Your task to perform on an android device: Open Google Maps Image 0: 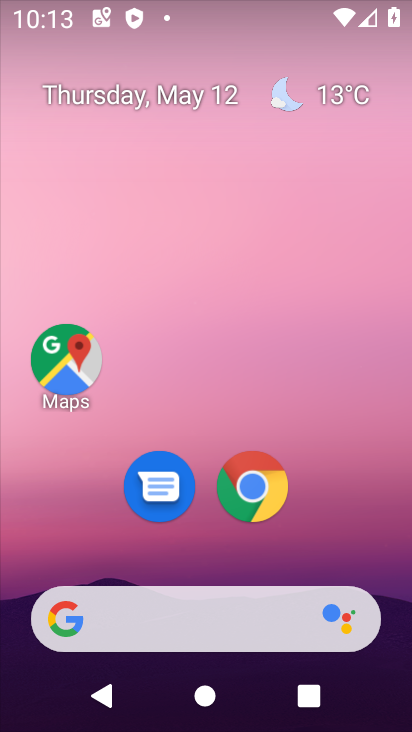
Step 0: click (69, 377)
Your task to perform on an android device: Open Google Maps Image 1: 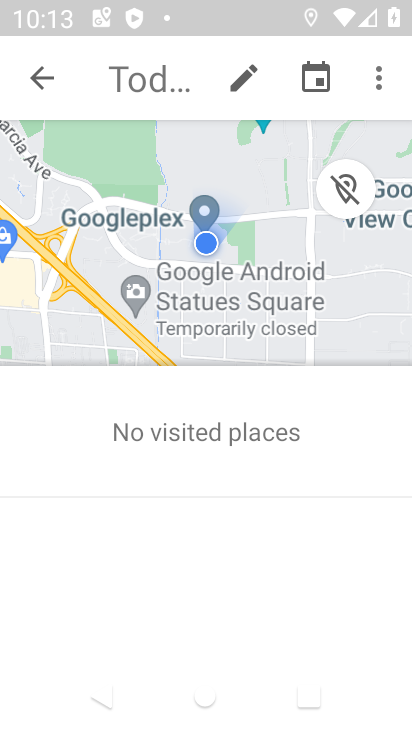
Step 1: click (53, 73)
Your task to perform on an android device: Open Google Maps Image 2: 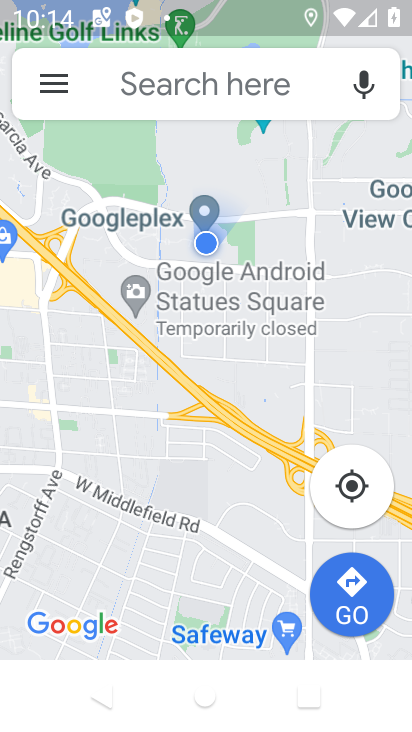
Step 2: task complete